Your task to perform on an android device: Go to Yahoo.com Image 0: 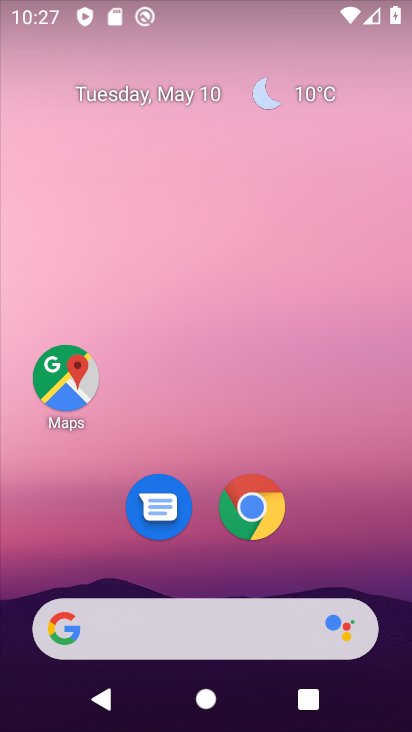
Step 0: click (255, 508)
Your task to perform on an android device: Go to Yahoo.com Image 1: 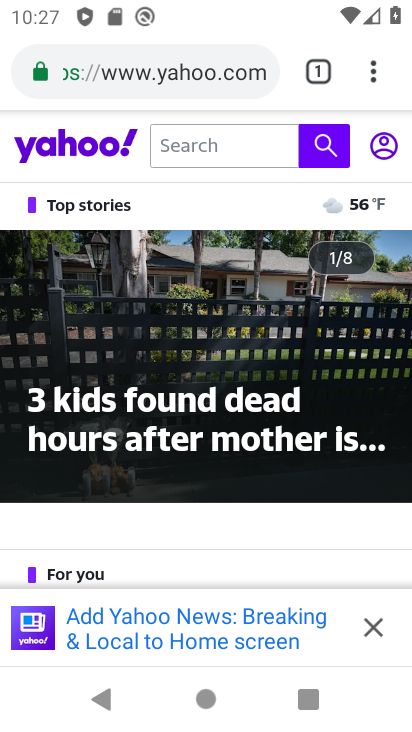
Step 1: task complete